Your task to perform on an android device: Go to CNN.com Image 0: 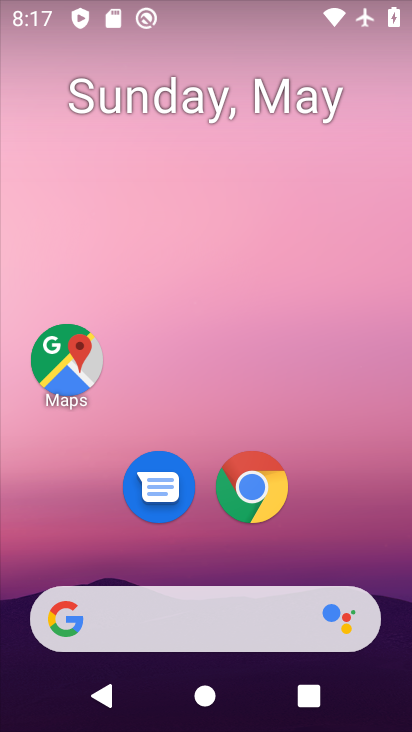
Step 0: click (262, 496)
Your task to perform on an android device: Go to CNN.com Image 1: 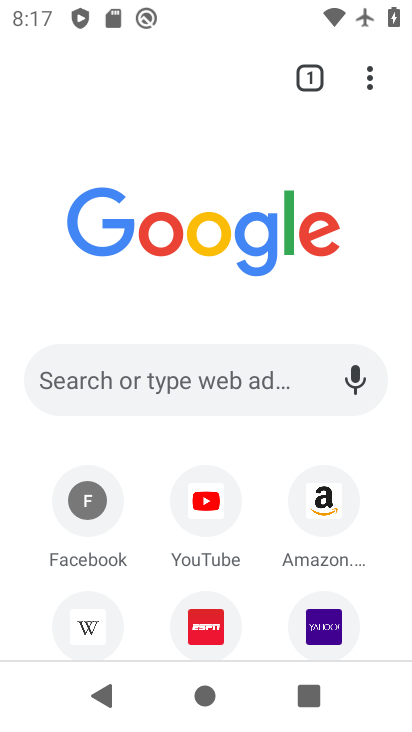
Step 1: drag from (216, 471) to (276, 208)
Your task to perform on an android device: Go to CNN.com Image 2: 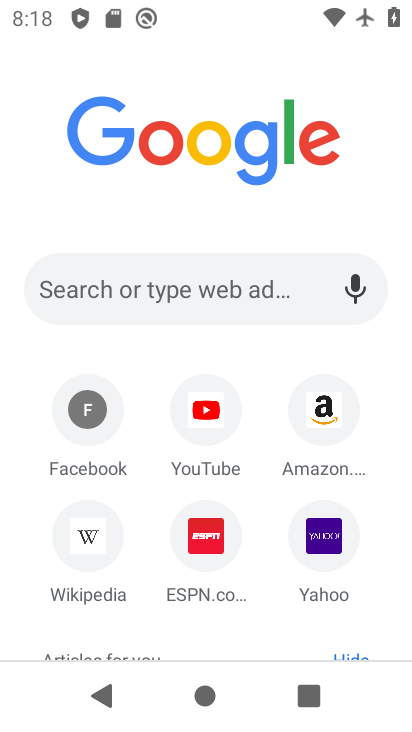
Step 2: click (114, 313)
Your task to perform on an android device: Go to CNN.com Image 3: 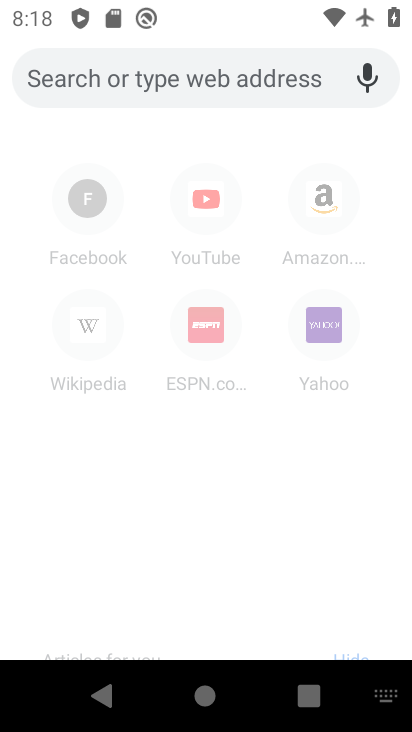
Step 3: type "cnn.com"
Your task to perform on an android device: Go to CNN.com Image 4: 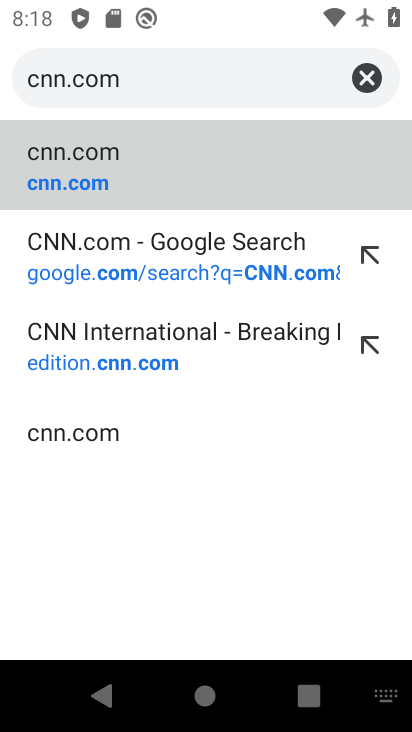
Step 4: click (114, 167)
Your task to perform on an android device: Go to CNN.com Image 5: 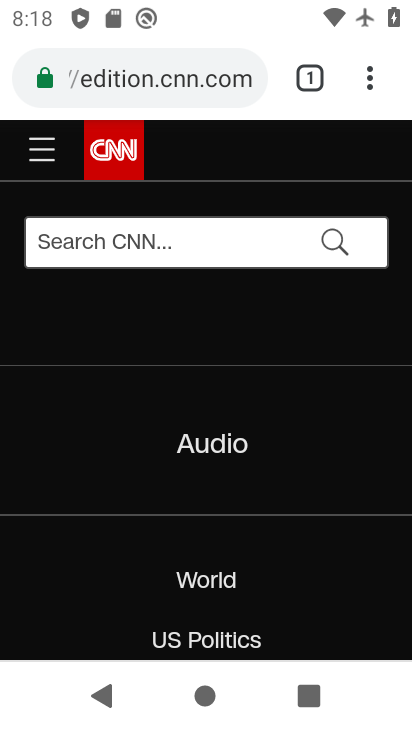
Step 5: task complete